Your task to perform on an android device: check data usage Image 0: 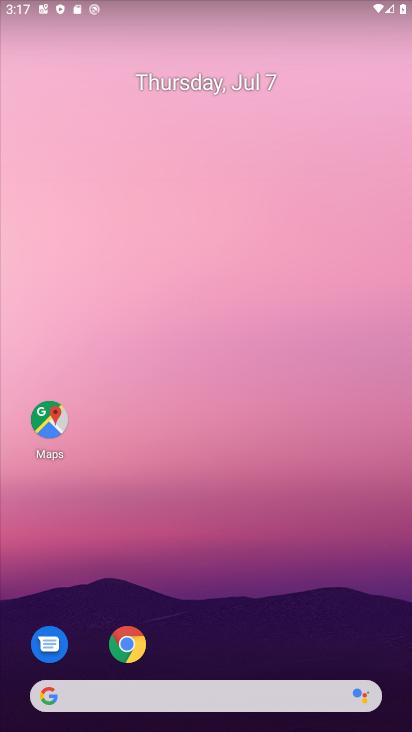
Step 0: drag from (219, 664) to (219, 151)
Your task to perform on an android device: check data usage Image 1: 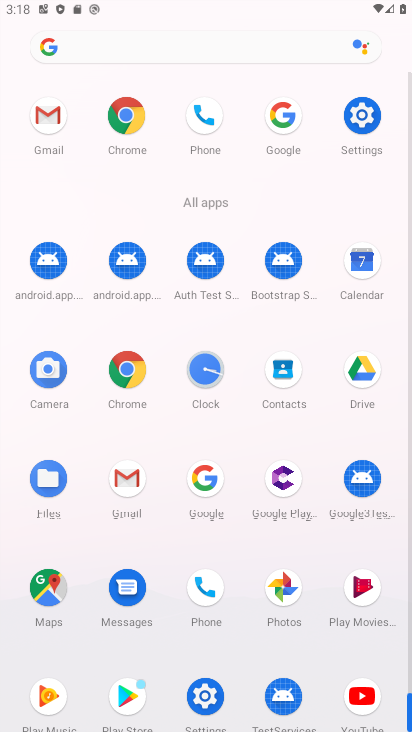
Step 1: click (355, 128)
Your task to perform on an android device: check data usage Image 2: 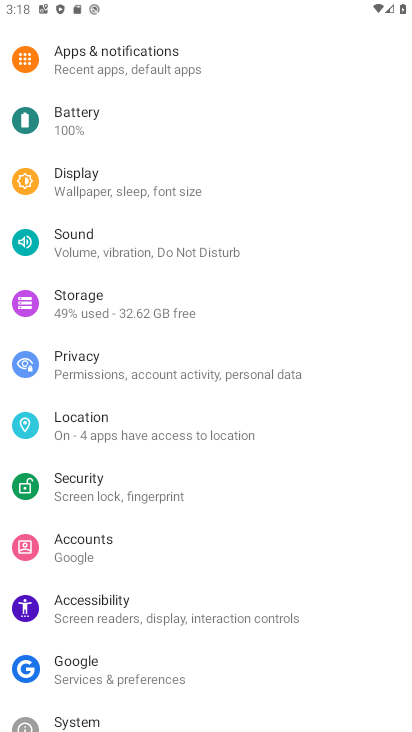
Step 2: drag from (171, 130) to (158, 448)
Your task to perform on an android device: check data usage Image 3: 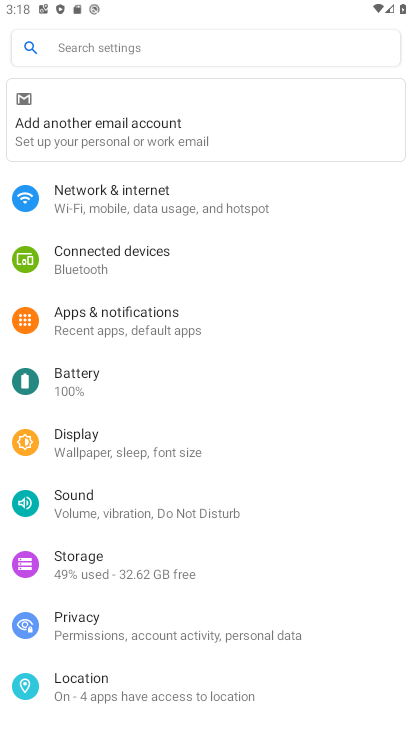
Step 3: click (132, 194)
Your task to perform on an android device: check data usage Image 4: 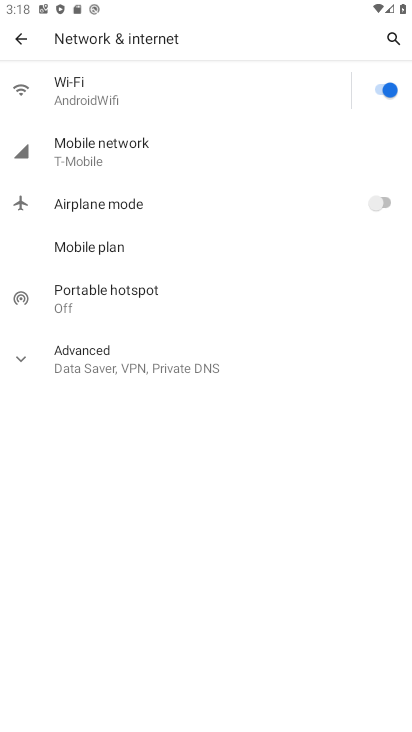
Step 4: click (91, 157)
Your task to perform on an android device: check data usage Image 5: 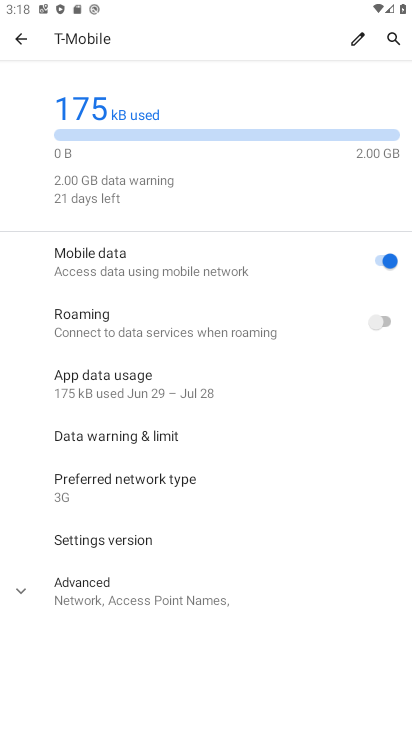
Step 5: task complete